Your task to perform on an android device: set default search engine in the chrome app Image 0: 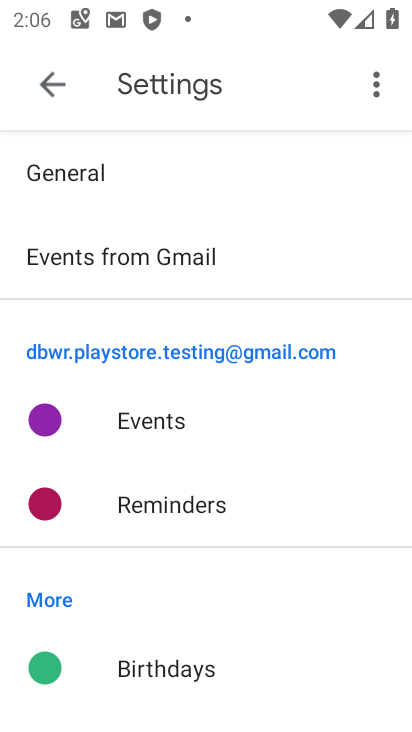
Step 0: press home button
Your task to perform on an android device: set default search engine in the chrome app Image 1: 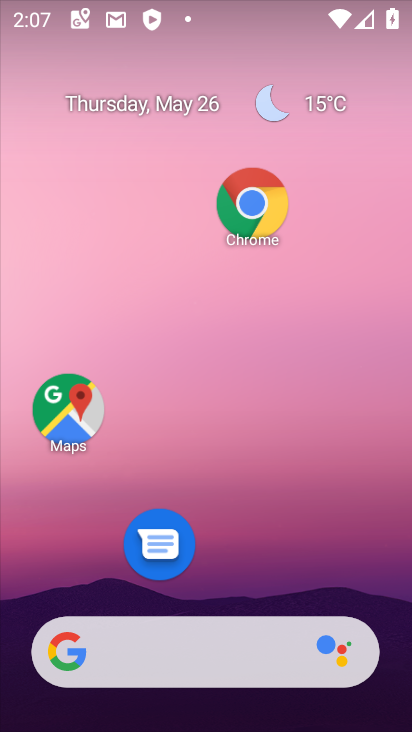
Step 1: drag from (194, 711) to (201, 576)
Your task to perform on an android device: set default search engine in the chrome app Image 2: 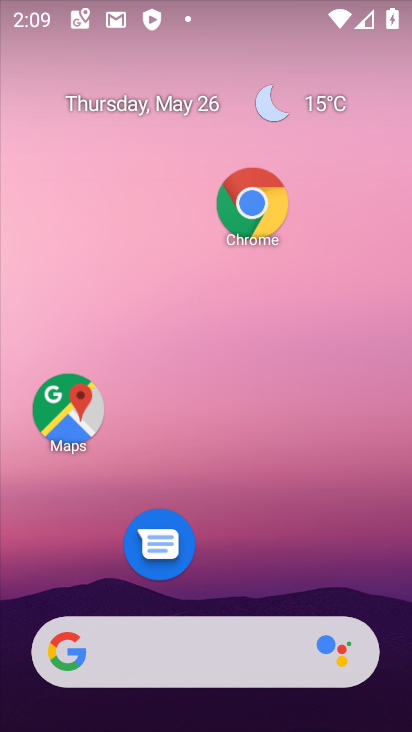
Step 2: click (256, 221)
Your task to perform on an android device: set default search engine in the chrome app Image 3: 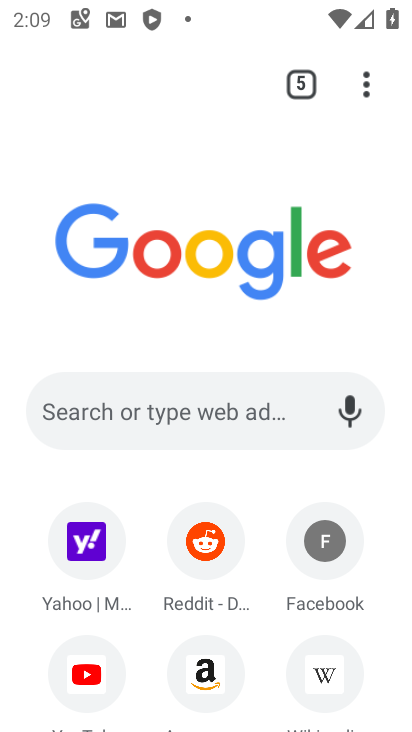
Step 3: click (374, 86)
Your task to perform on an android device: set default search engine in the chrome app Image 4: 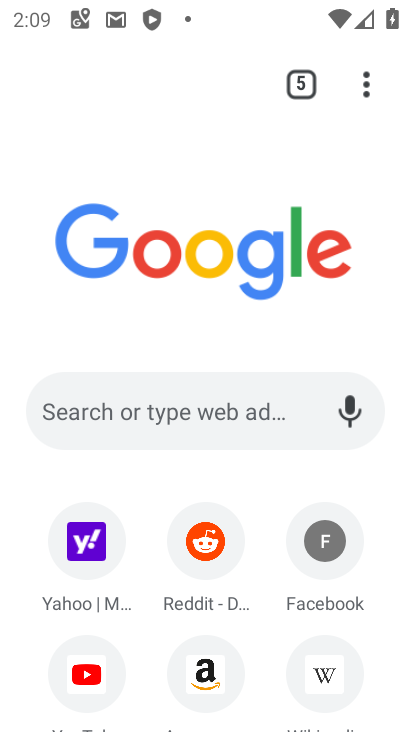
Step 4: click (364, 82)
Your task to perform on an android device: set default search engine in the chrome app Image 5: 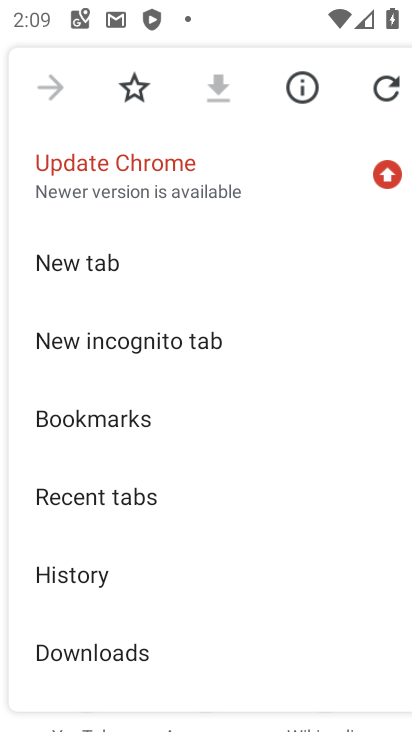
Step 5: drag from (290, 626) to (315, 140)
Your task to perform on an android device: set default search engine in the chrome app Image 6: 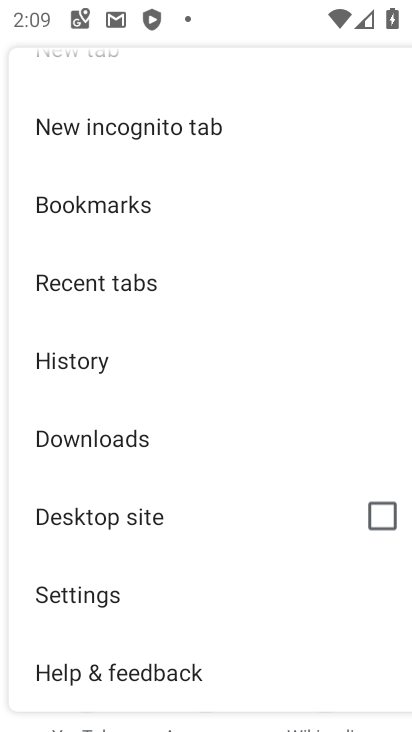
Step 6: click (110, 597)
Your task to perform on an android device: set default search engine in the chrome app Image 7: 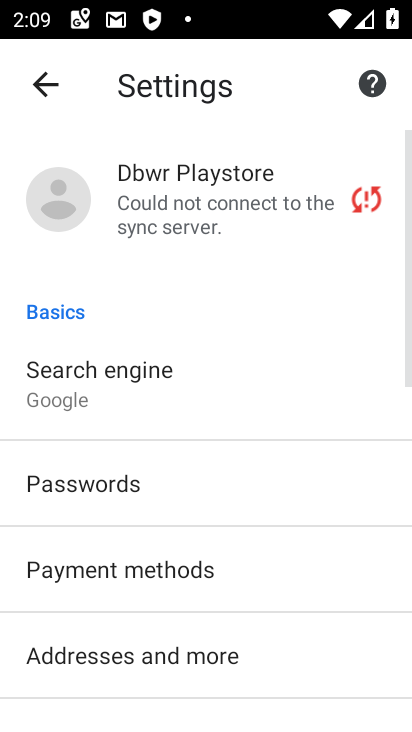
Step 7: click (120, 384)
Your task to perform on an android device: set default search engine in the chrome app Image 8: 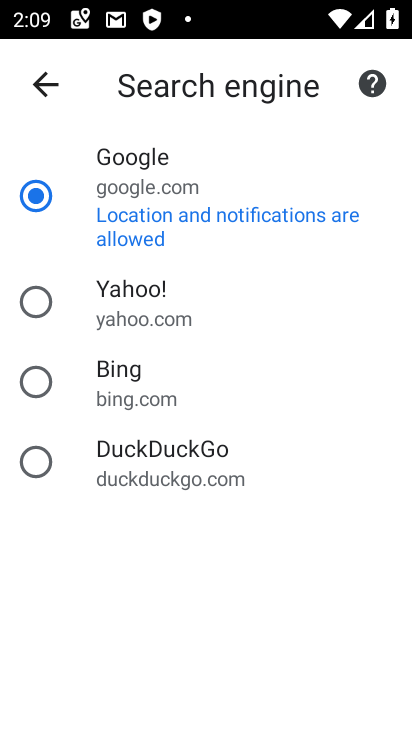
Step 8: task complete